Your task to perform on an android device: Search for sushi restaurants on Maps Image 0: 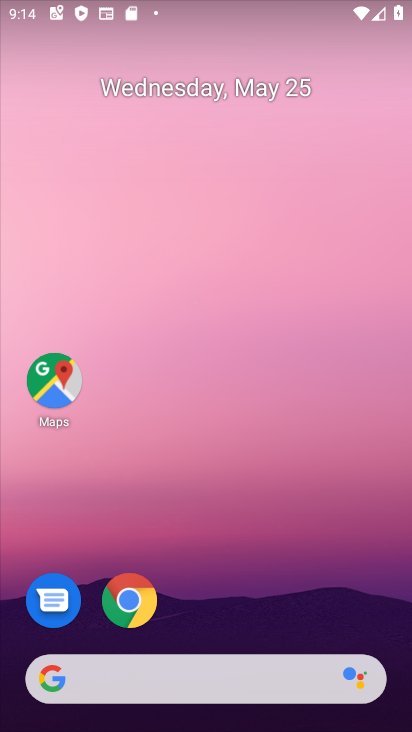
Step 0: drag from (214, 558) to (176, 54)
Your task to perform on an android device: Search for sushi restaurants on Maps Image 1: 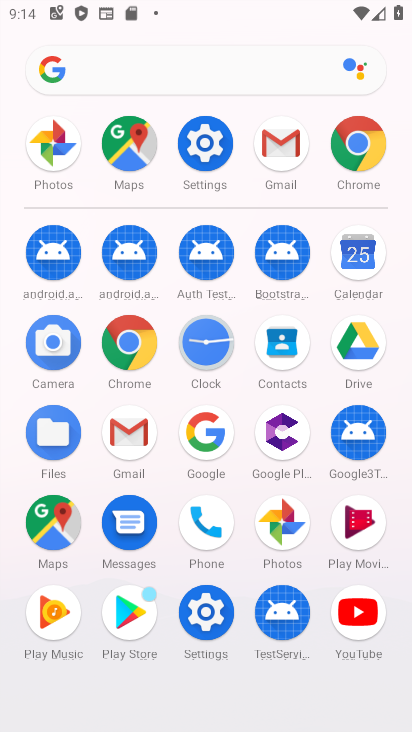
Step 1: click (47, 519)
Your task to perform on an android device: Search for sushi restaurants on Maps Image 2: 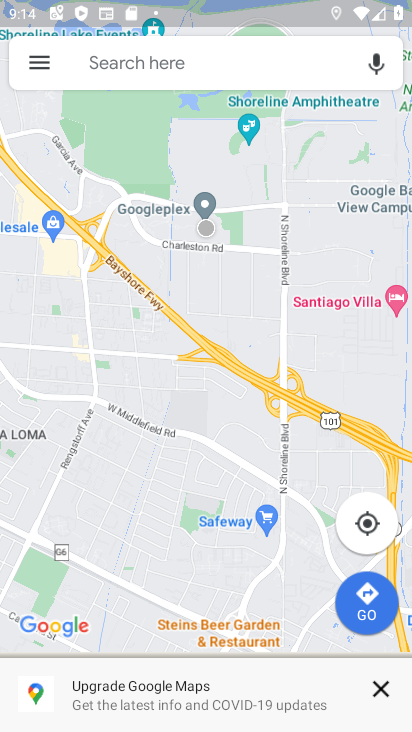
Step 2: click (220, 66)
Your task to perform on an android device: Search for sushi restaurants on Maps Image 3: 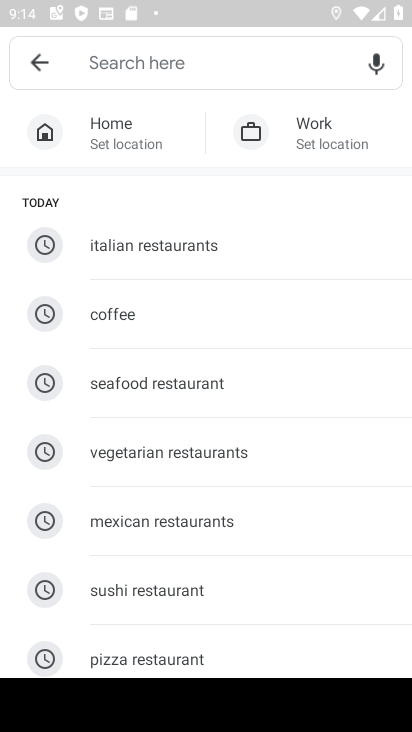
Step 3: click (164, 566)
Your task to perform on an android device: Search for sushi restaurants on Maps Image 4: 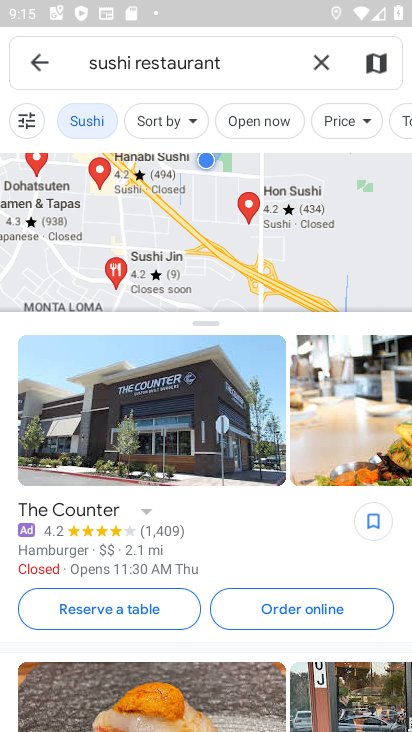
Step 4: task complete